Your task to perform on an android device: install app "Pluto TV - Live TV and Movies" Image 0: 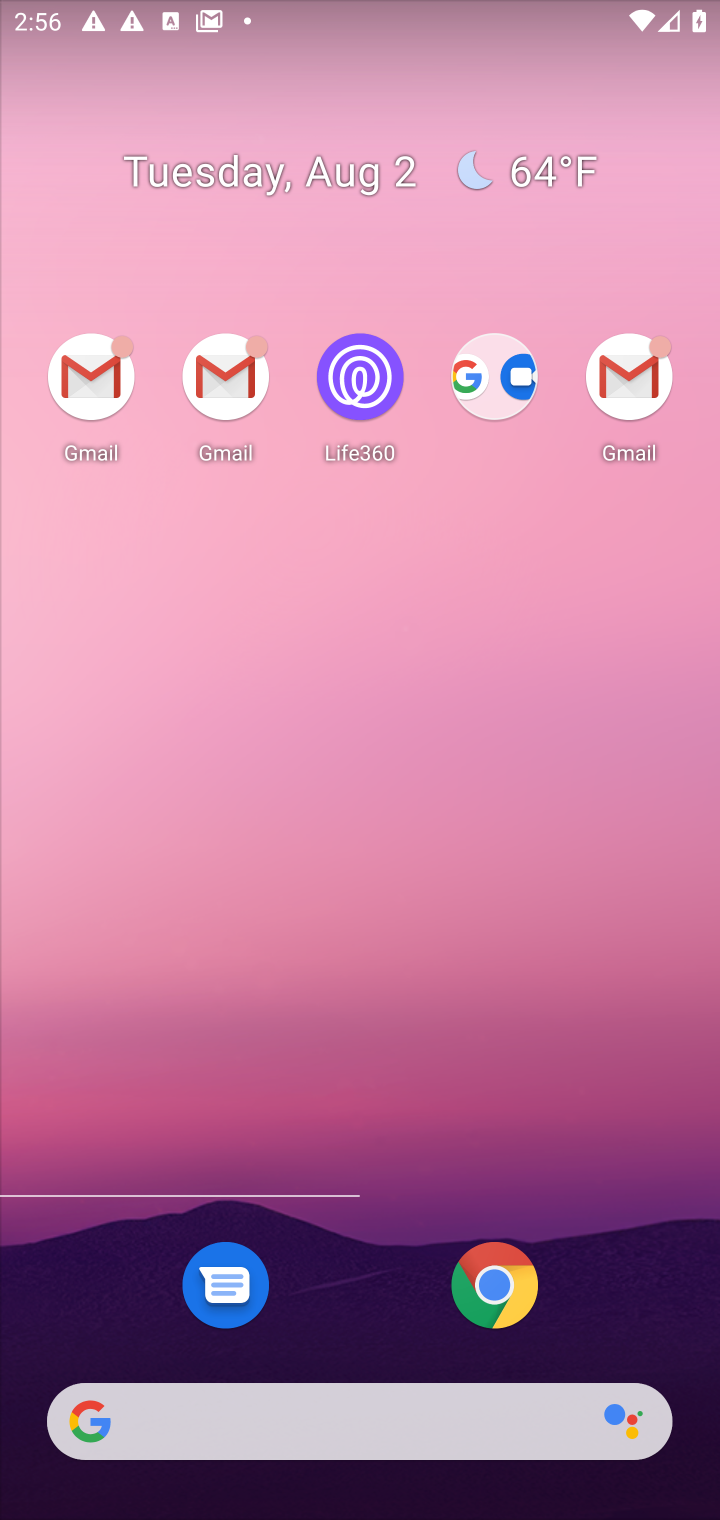
Step 0: drag from (510, 1054) to (492, 169)
Your task to perform on an android device: install app "Pluto TV - Live TV and Movies" Image 1: 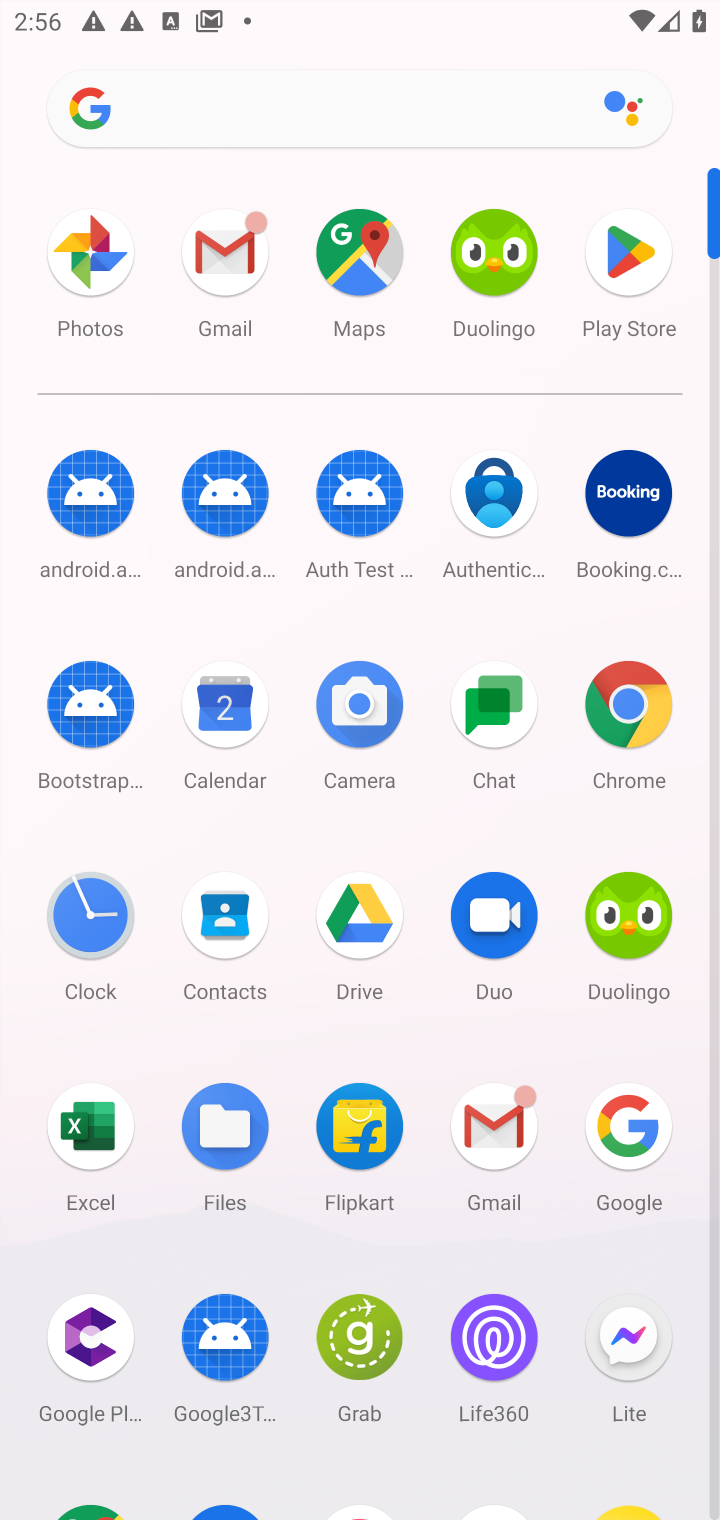
Step 1: drag from (451, 1254) to (454, 461)
Your task to perform on an android device: install app "Pluto TV - Live TV and Movies" Image 2: 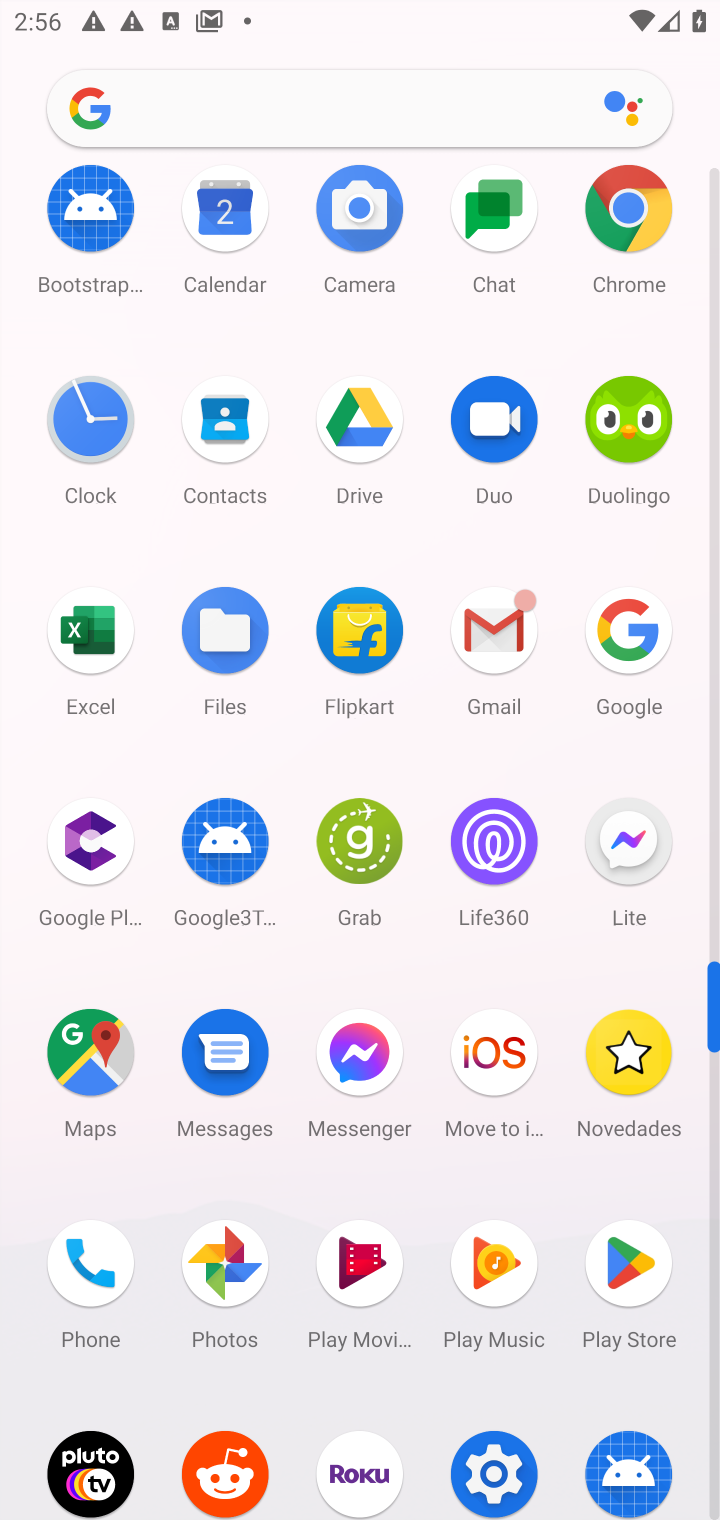
Step 2: click (652, 1257)
Your task to perform on an android device: install app "Pluto TV - Live TV and Movies" Image 3: 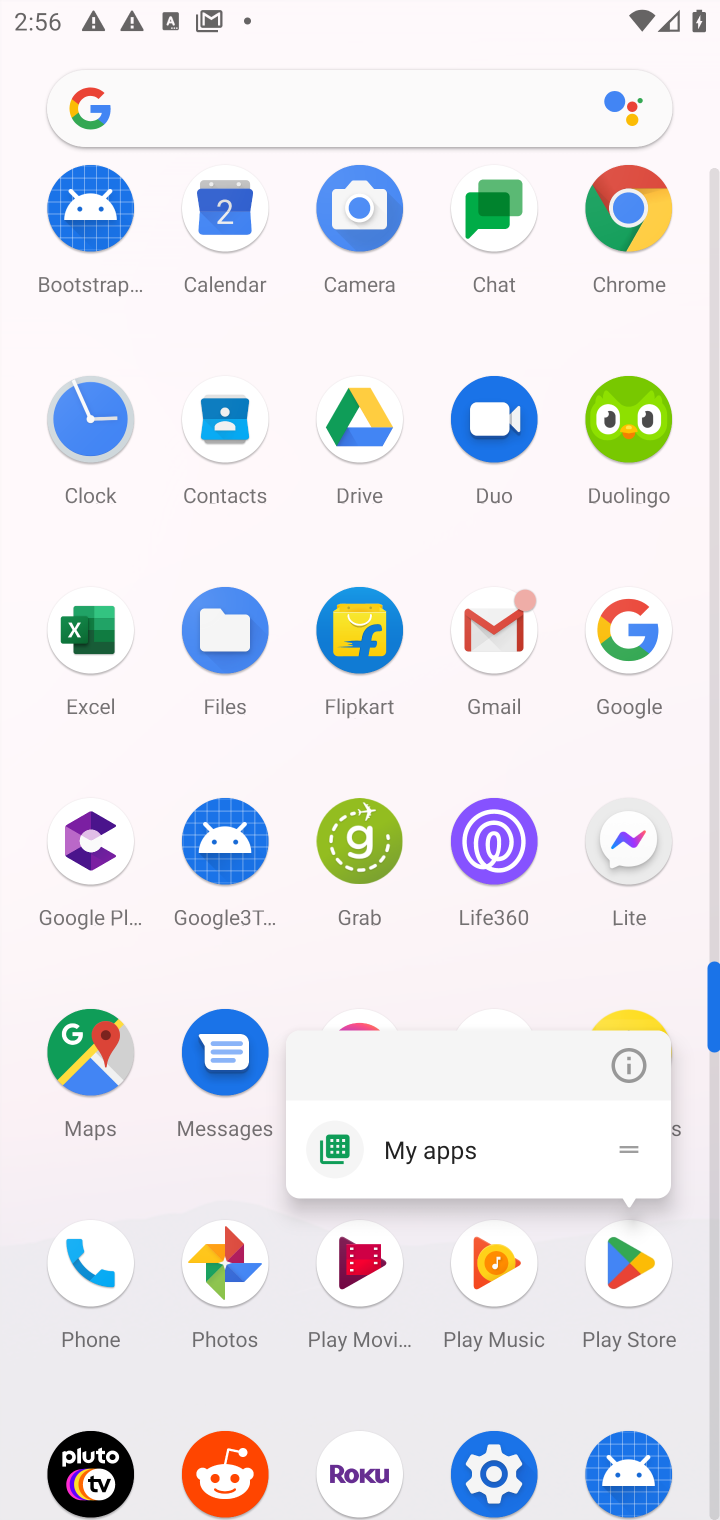
Step 3: click (630, 1266)
Your task to perform on an android device: install app "Pluto TV - Live TV and Movies" Image 4: 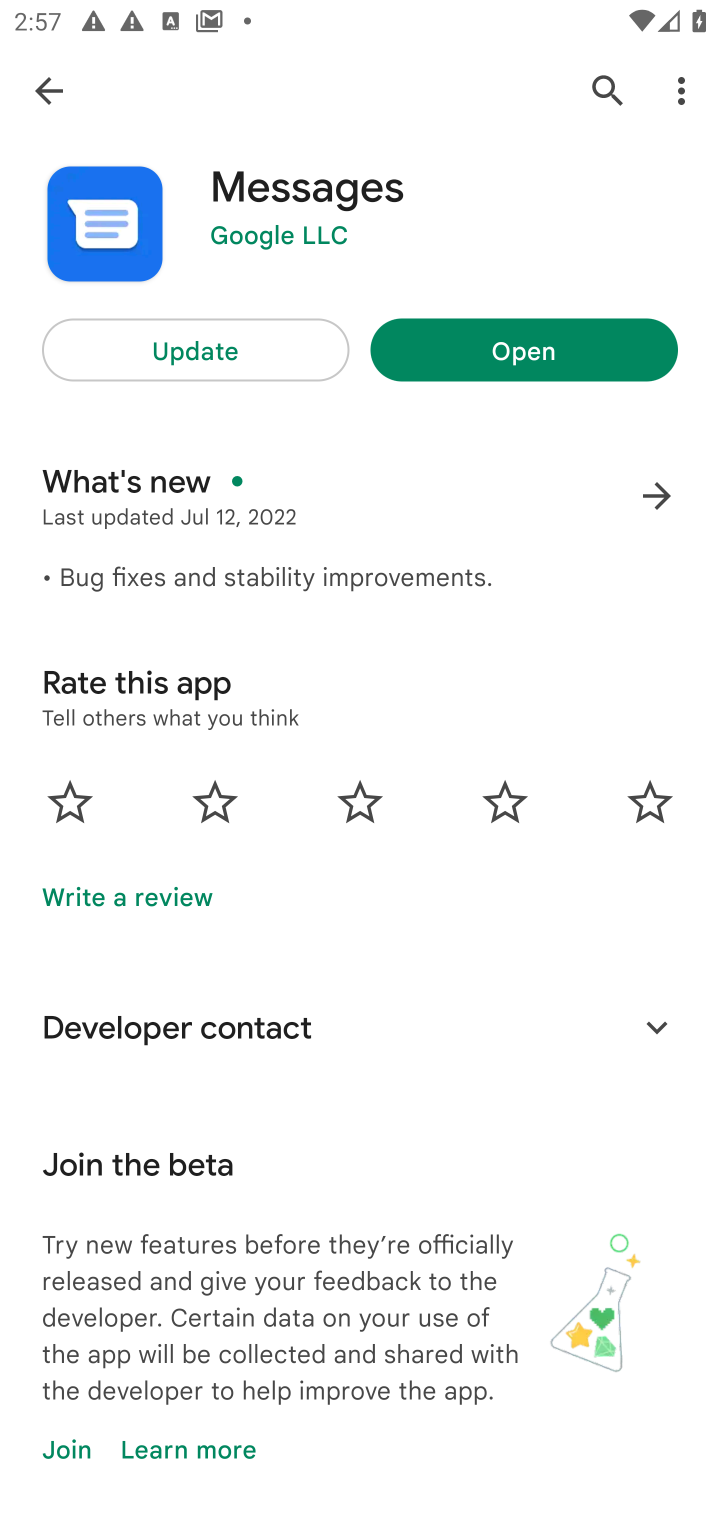
Step 4: click (71, 94)
Your task to perform on an android device: install app "Pluto TV - Live TV and Movies" Image 5: 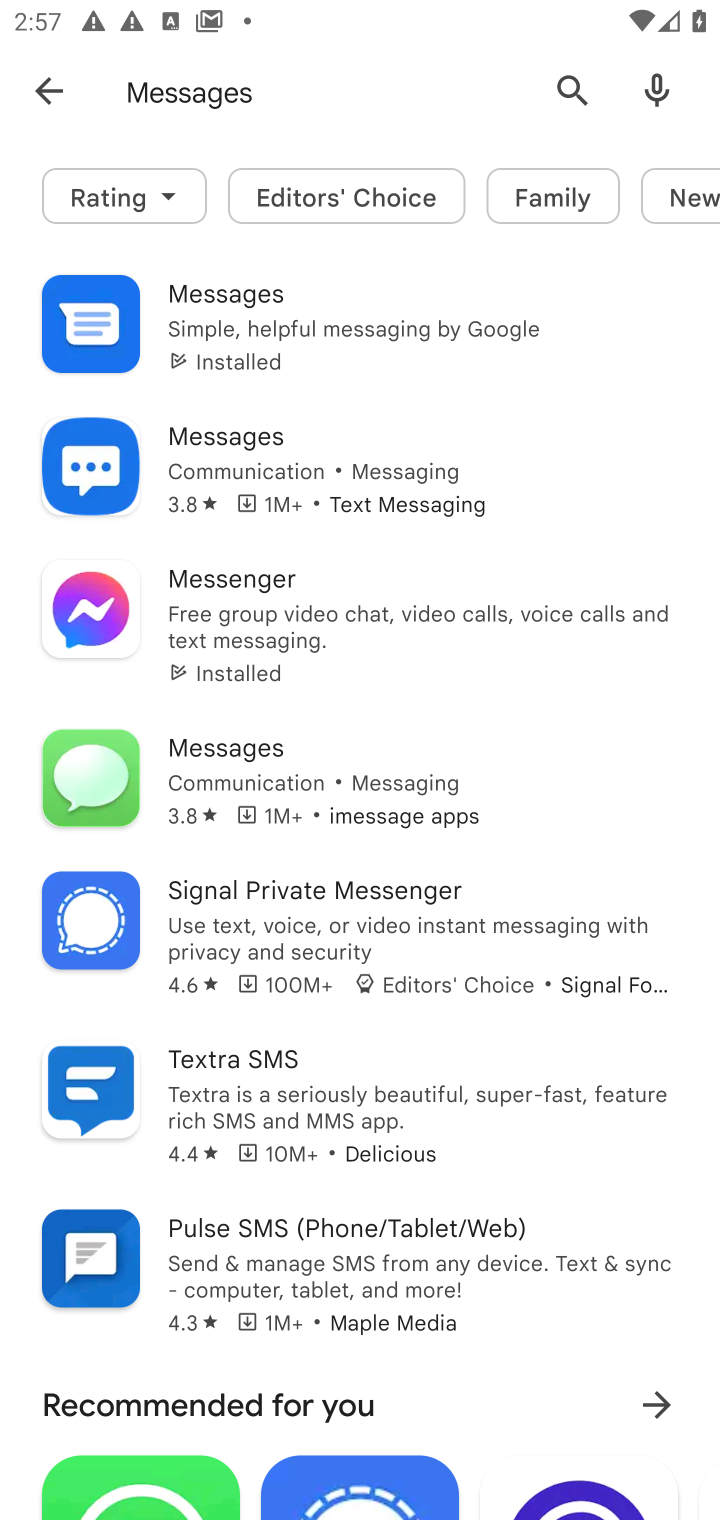
Step 5: click (488, 113)
Your task to perform on an android device: install app "Pluto TV - Live TV and Movies" Image 6: 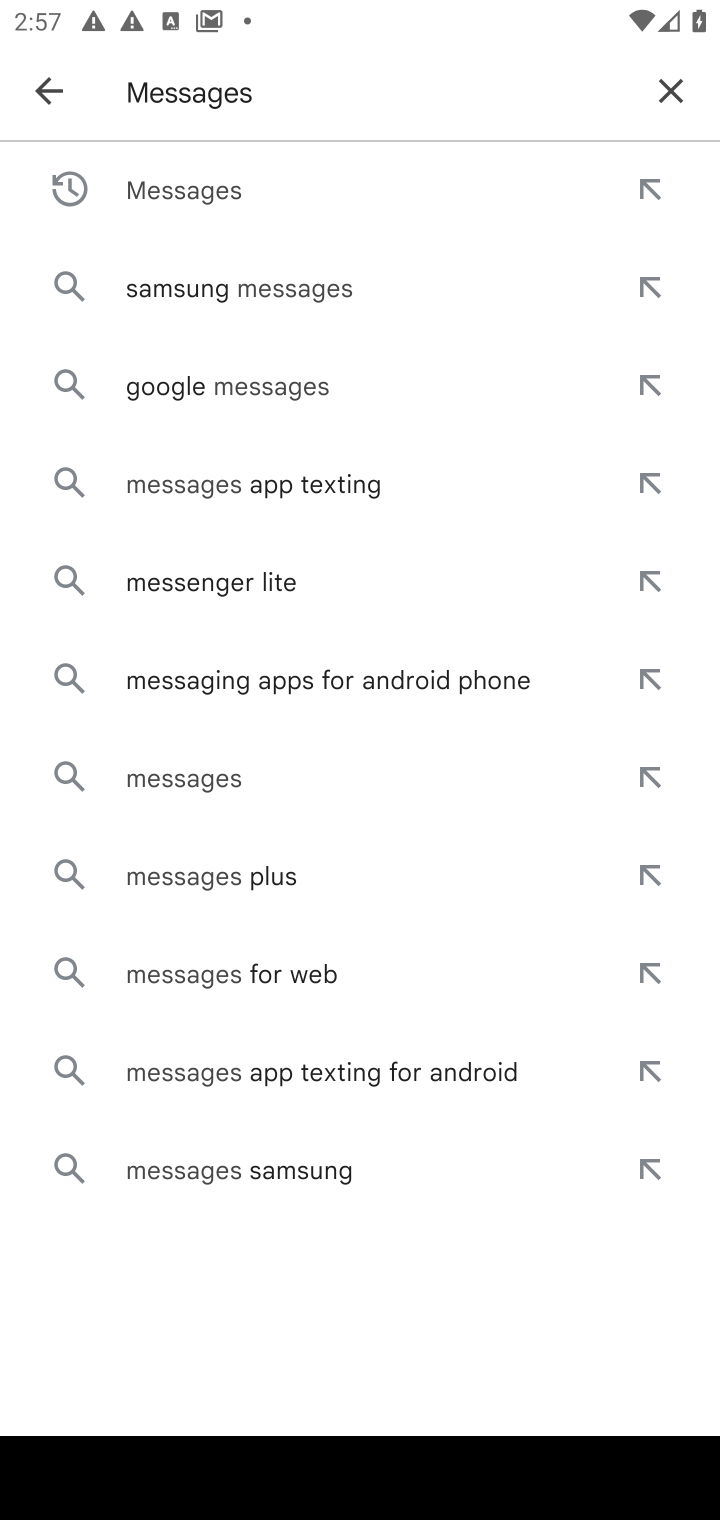
Step 6: click (657, 94)
Your task to perform on an android device: install app "Pluto TV - Live TV and Movies" Image 7: 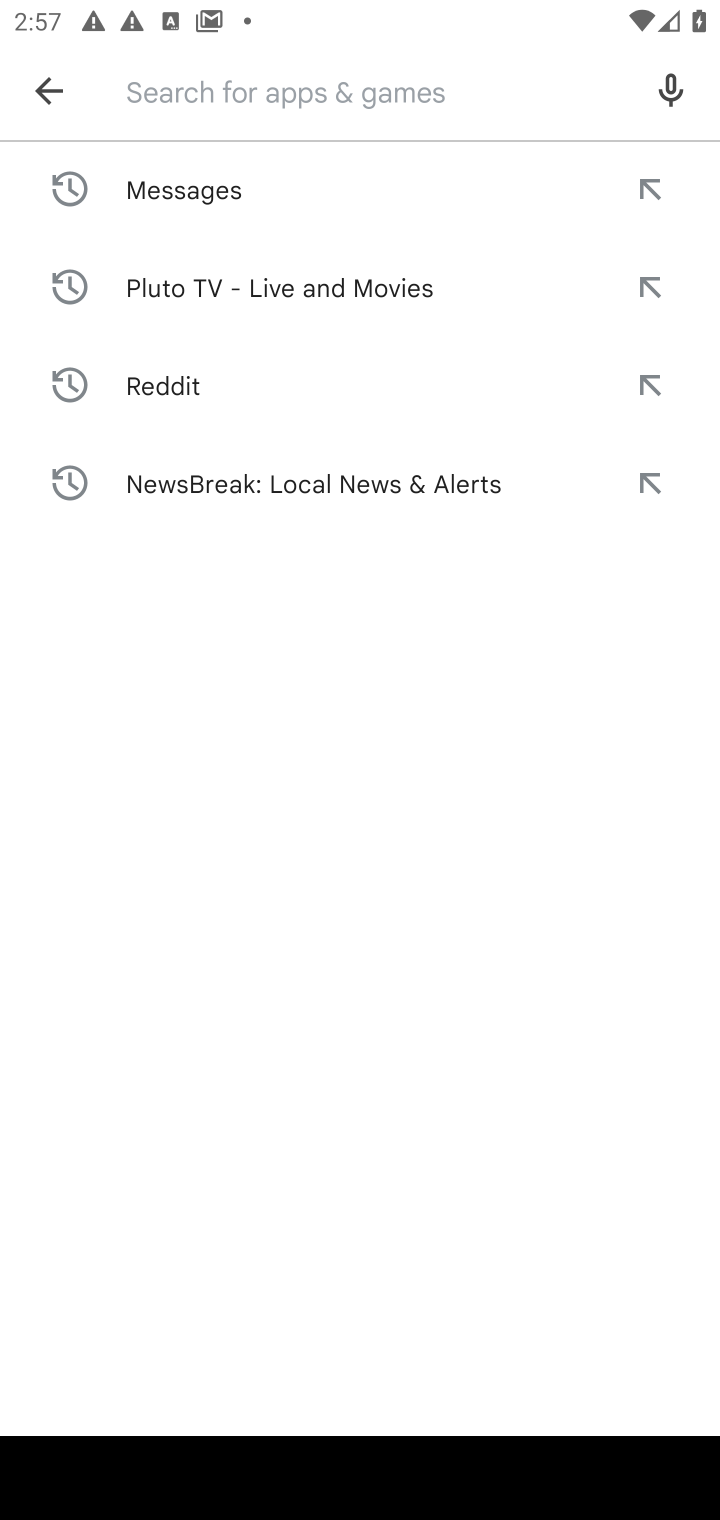
Step 7: click (369, 286)
Your task to perform on an android device: install app "Pluto TV - Live TV and Movies" Image 8: 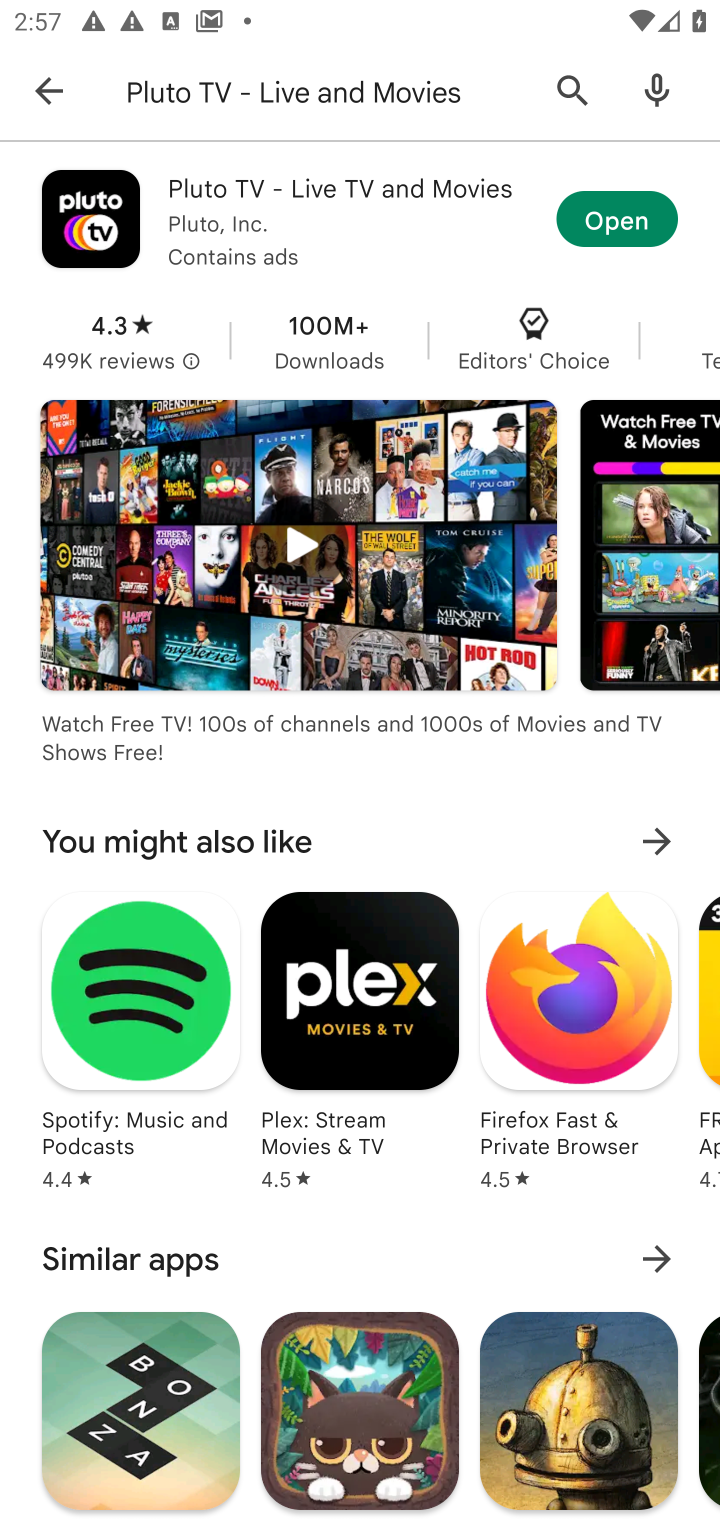
Step 8: task complete